Your task to perform on an android device: delete location history Image 0: 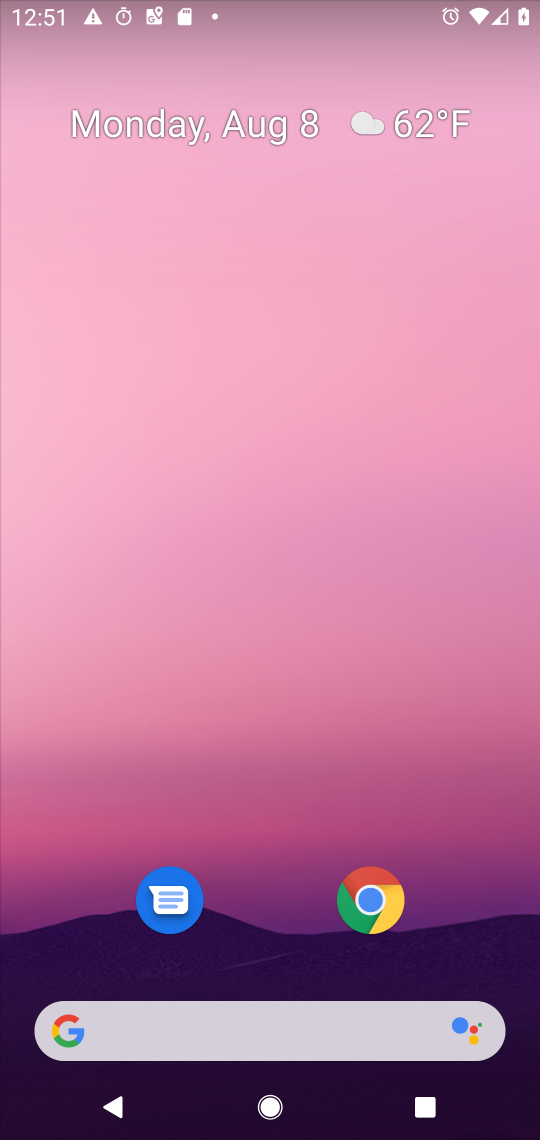
Step 0: drag from (276, 953) to (306, 28)
Your task to perform on an android device: delete location history Image 1: 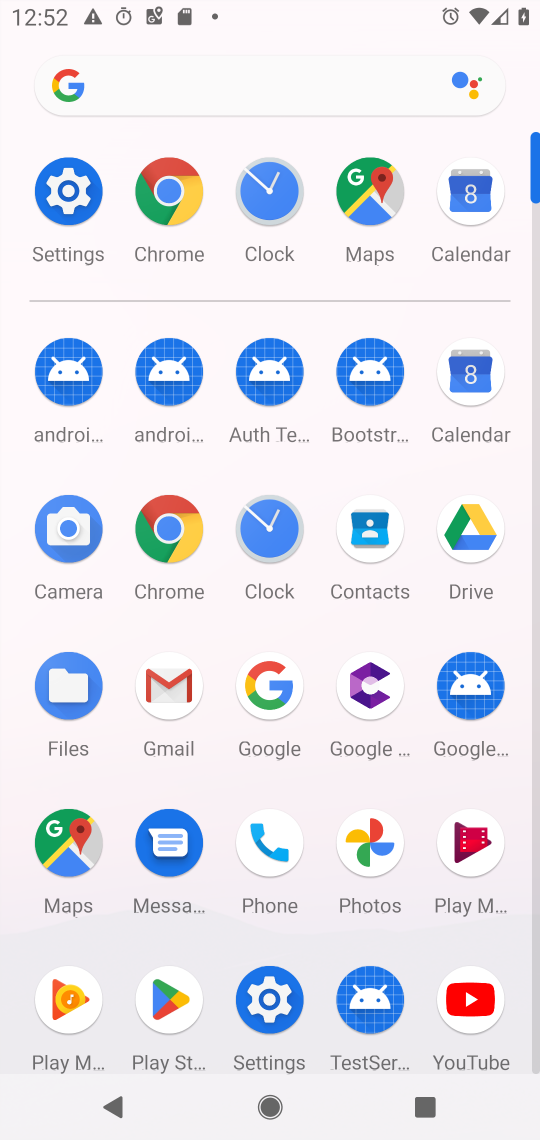
Step 1: click (373, 187)
Your task to perform on an android device: delete location history Image 2: 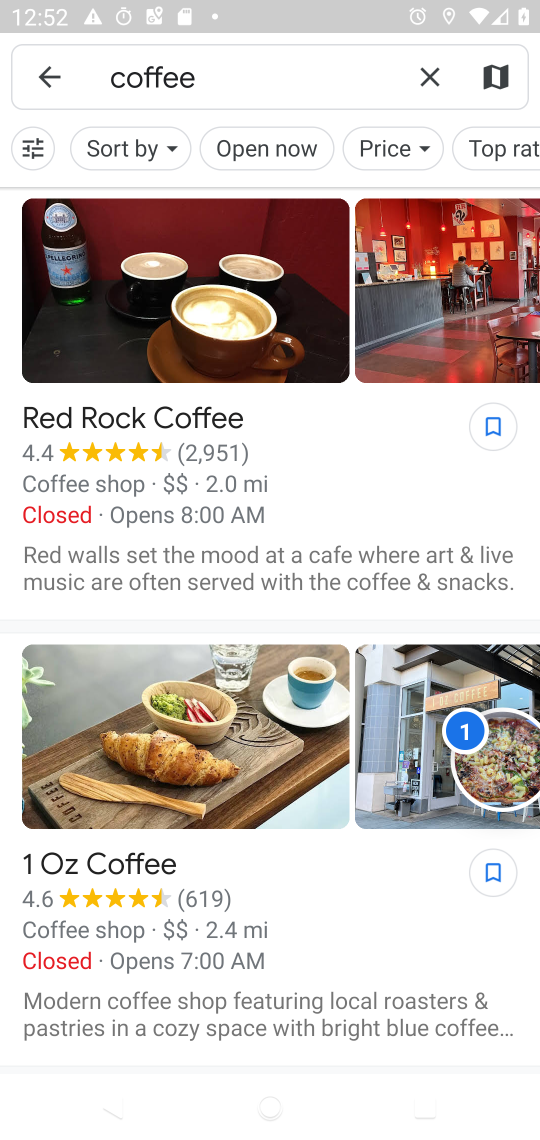
Step 2: click (37, 87)
Your task to perform on an android device: delete location history Image 3: 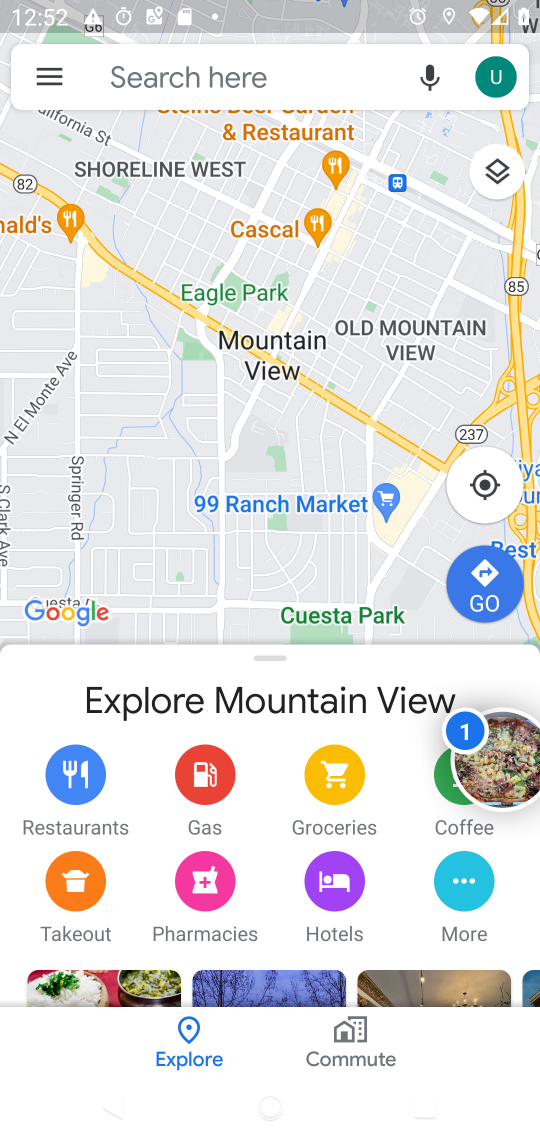
Step 3: click (47, 70)
Your task to perform on an android device: delete location history Image 4: 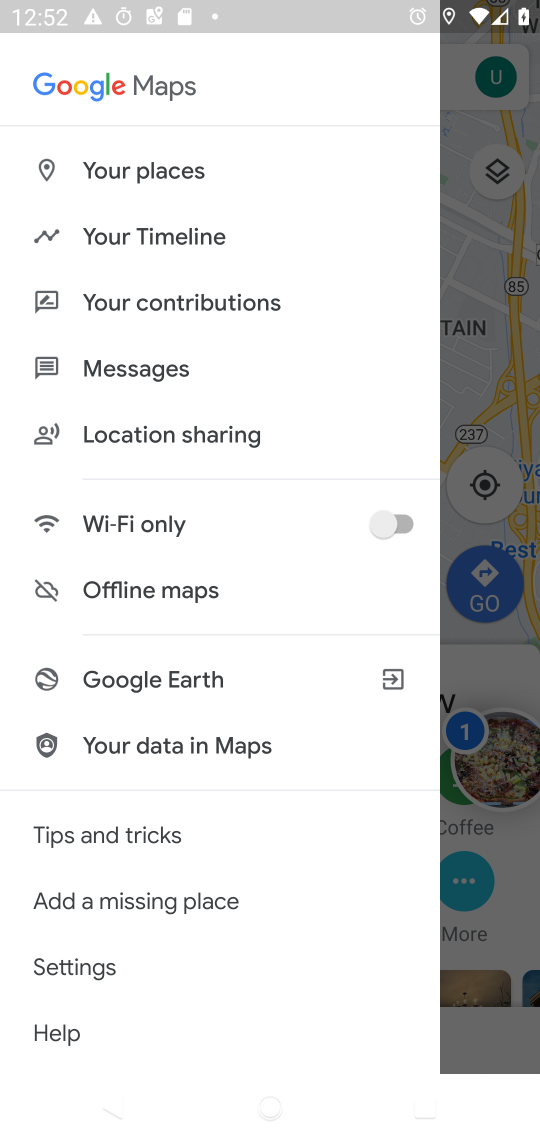
Step 4: click (153, 228)
Your task to perform on an android device: delete location history Image 5: 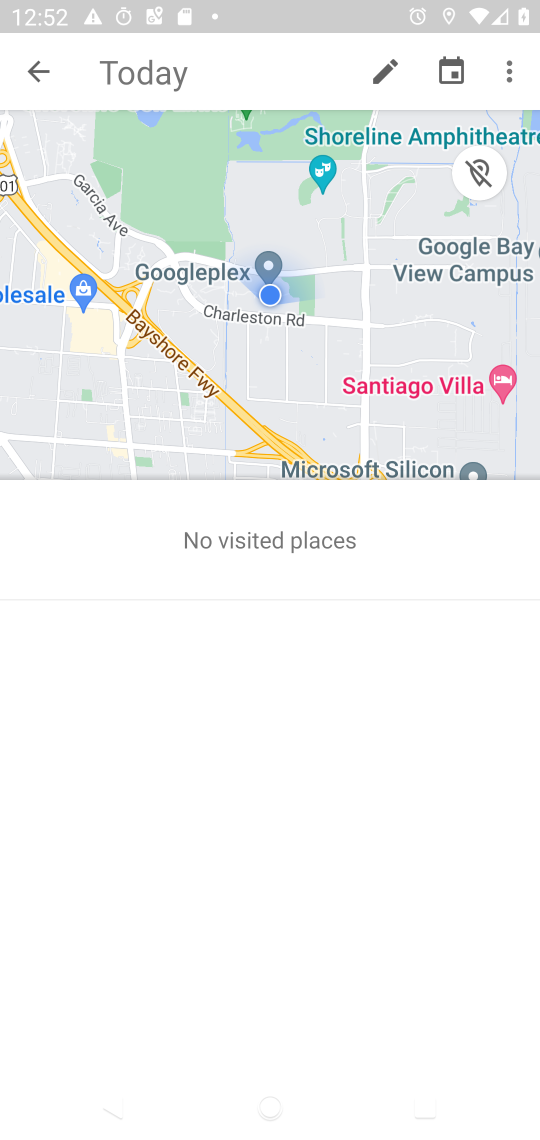
Step 5: click (509, 69)
Your task to perform on an android device: delete location history Image 6: 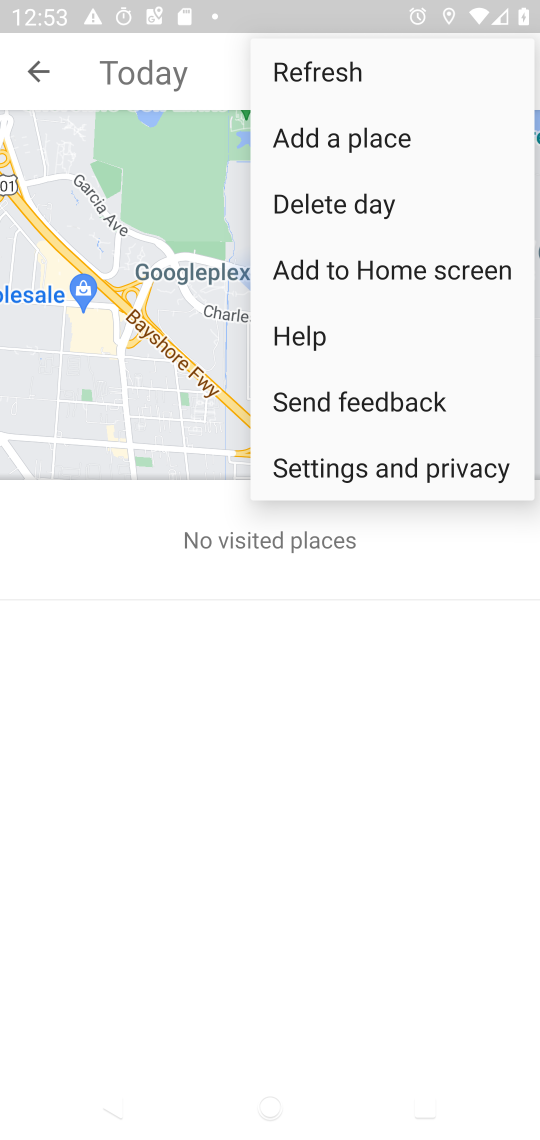
Step 6: click (385, 466)
Your task to perform on an android device: delete location history Image 7: 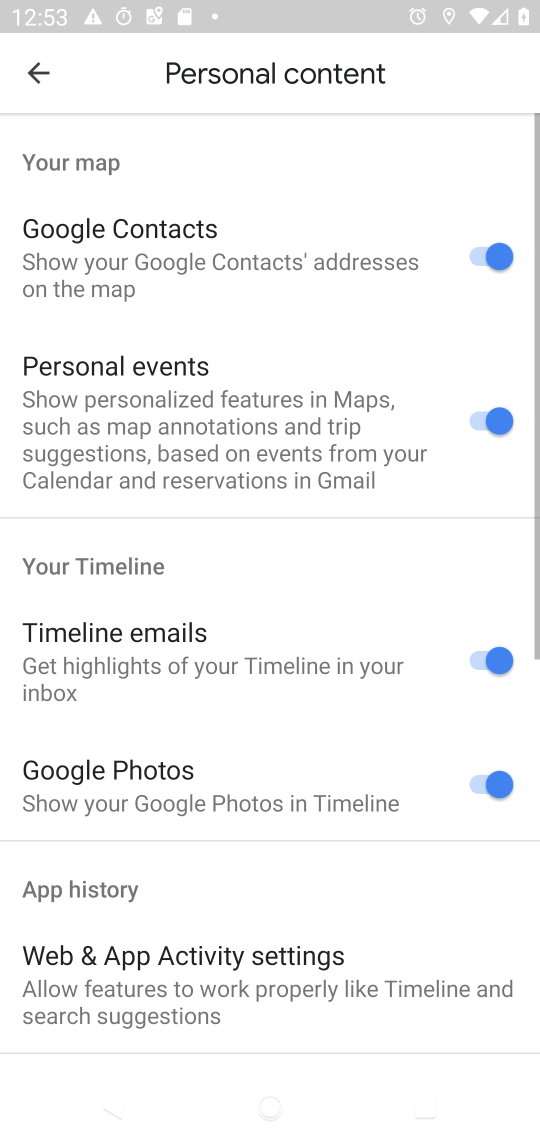
Step 7: drag from (260, 940) to (314, 187)
Your task to perform on an android device: delete location history Image 8: 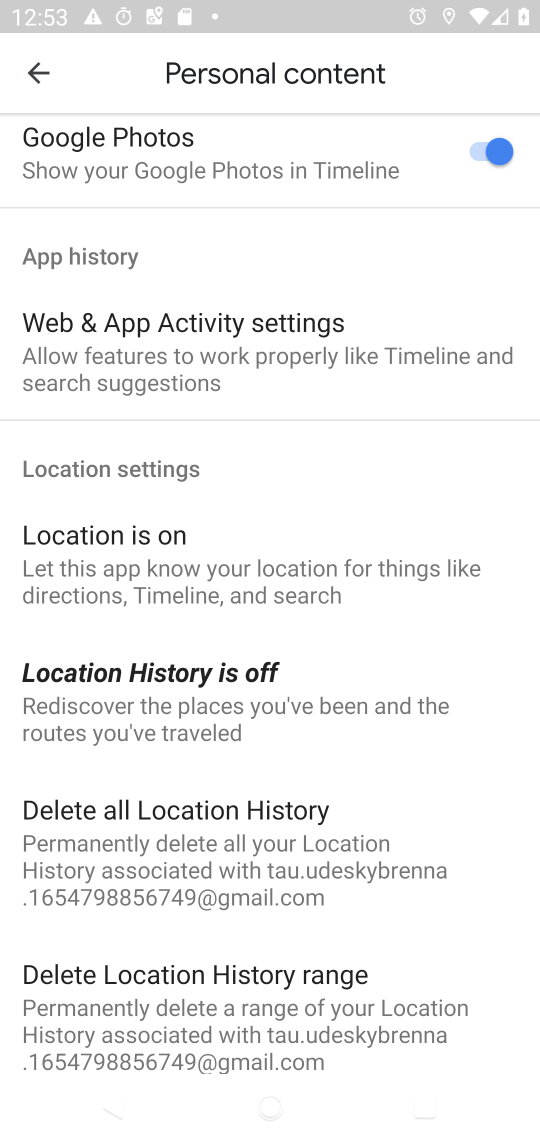
Step 8: drag from (300, 974) to (284, 510)
Your task to perform on an android device: delete location history Image 9: 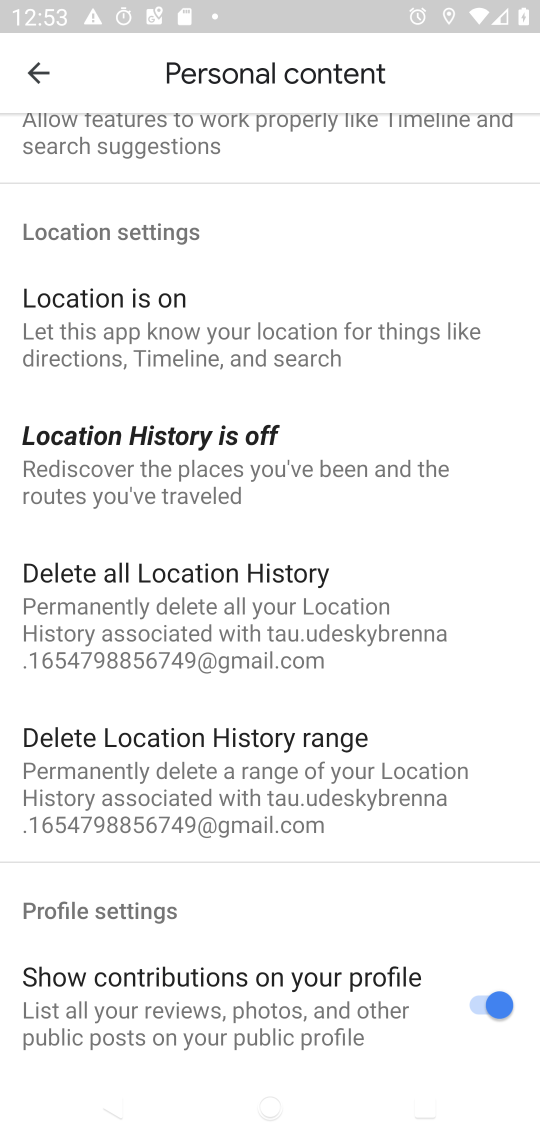
Step 9: click (171, 580)
Your task to perform on an android device: delete location history Image 10: 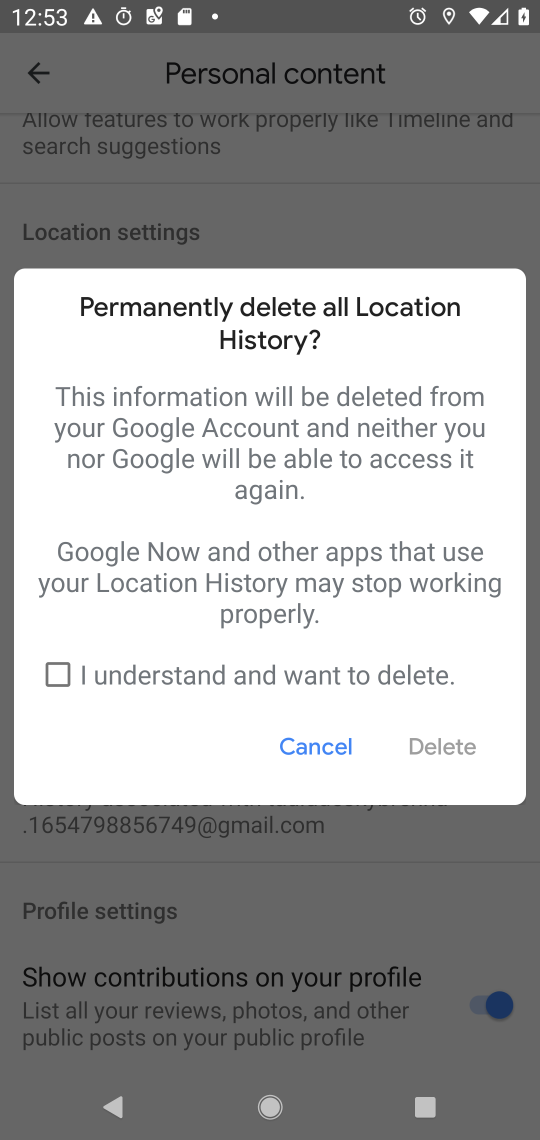
Step 10: click (65, 681)
Your task to perform on an android device: delete location history Image 11: 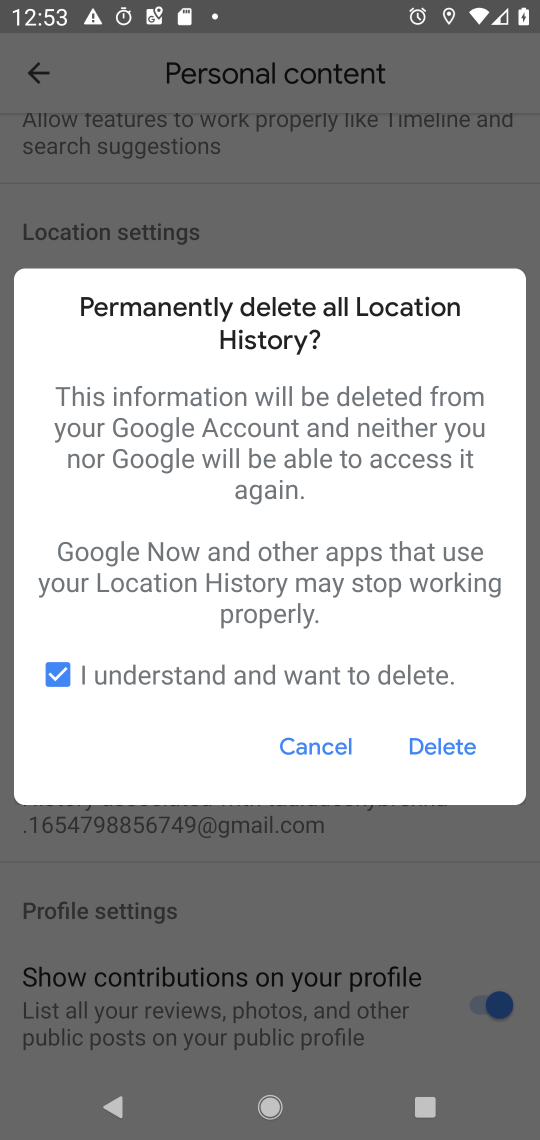
Step 11: click (449, 751)
Your task to perform on an android device: delete location history Image 12: 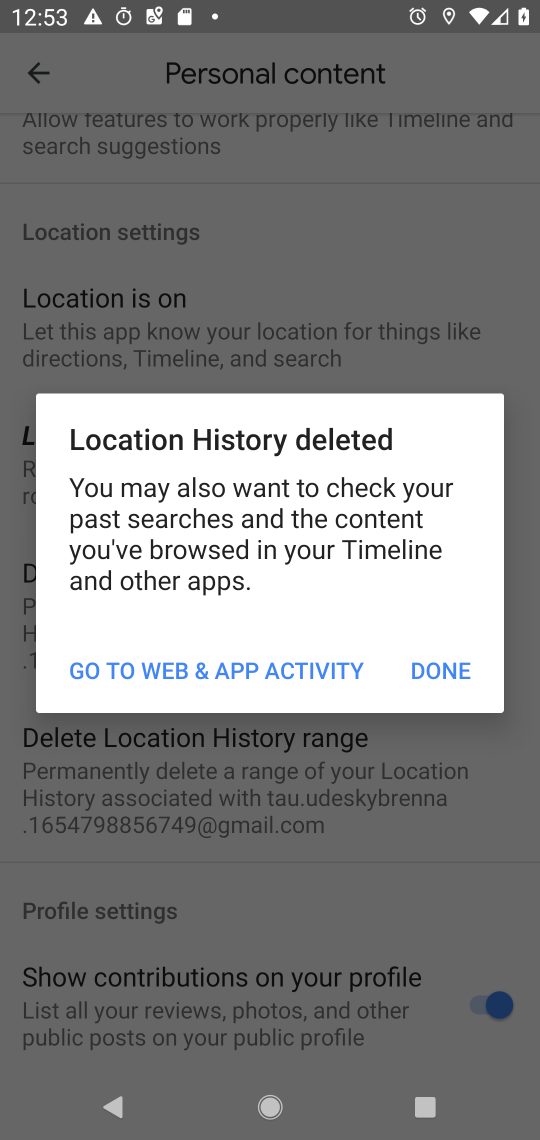
Step 12: click (454, 669)
Your task to perform on an android device: delete location history Image 13: 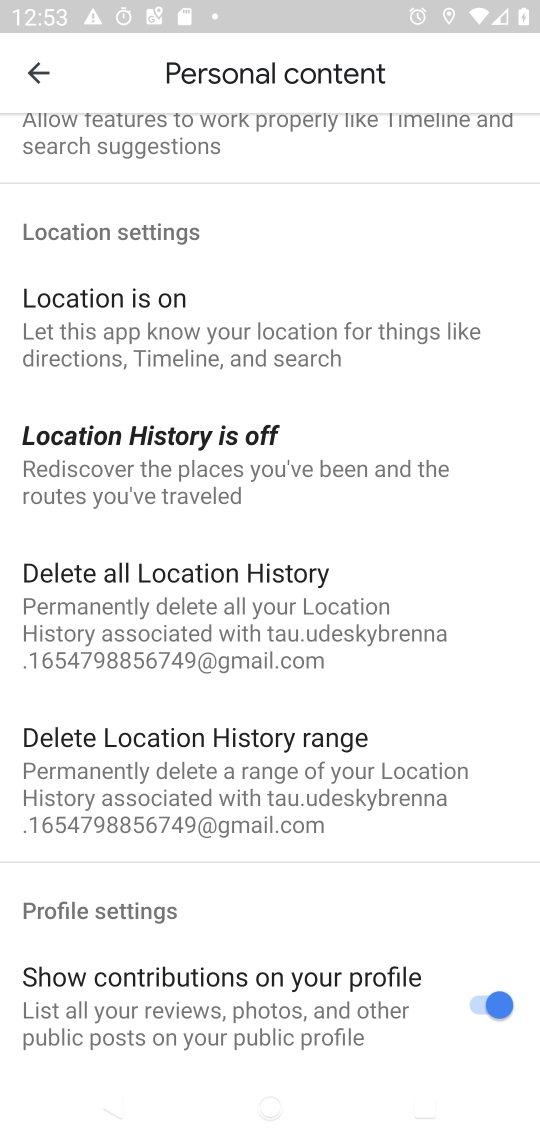
Step 13: task complete